Your task to perform on an android device: toggle wifi Image 0: 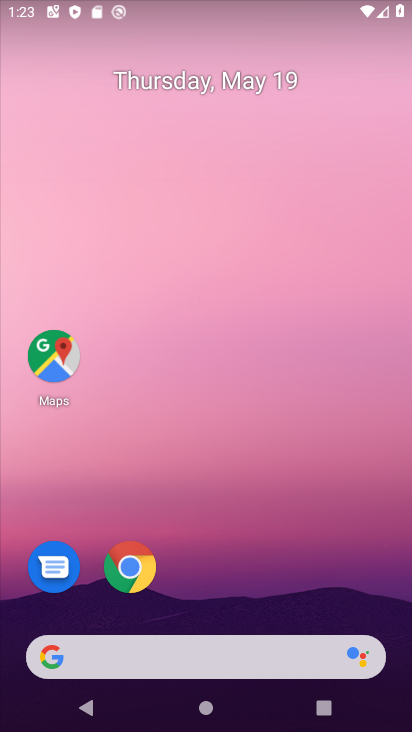
Step 0: drag from (46, 15) to (74, 497)
Your task to perform on an android device: toggle wifi Image 1: 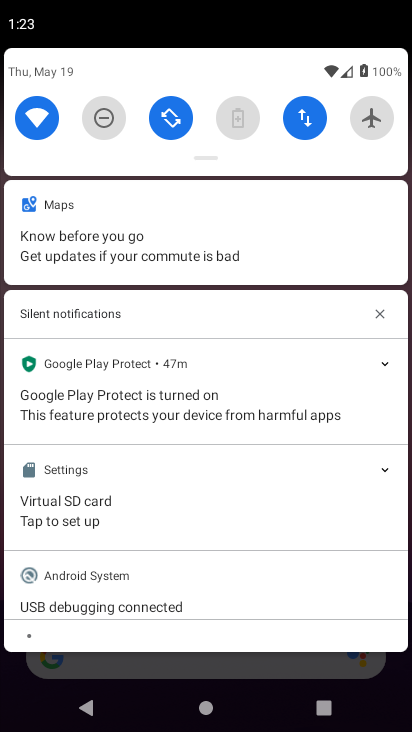
Step 1: click (35, 114)
Your task to perform on an android device: toggle wifi Image 2: 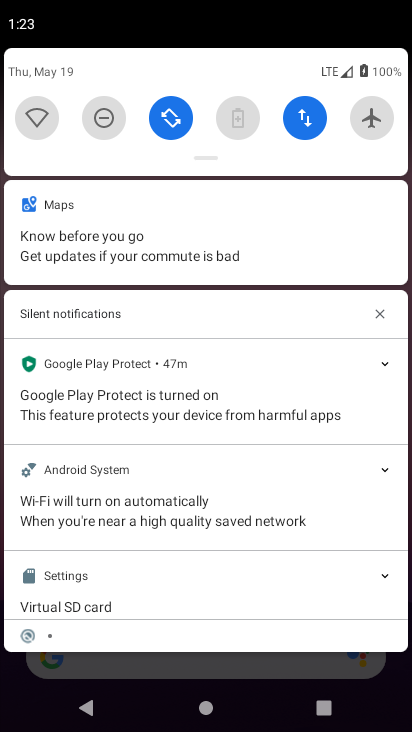
Step 2: task complete